Your task to perform on an android device: set the timer Image 0: 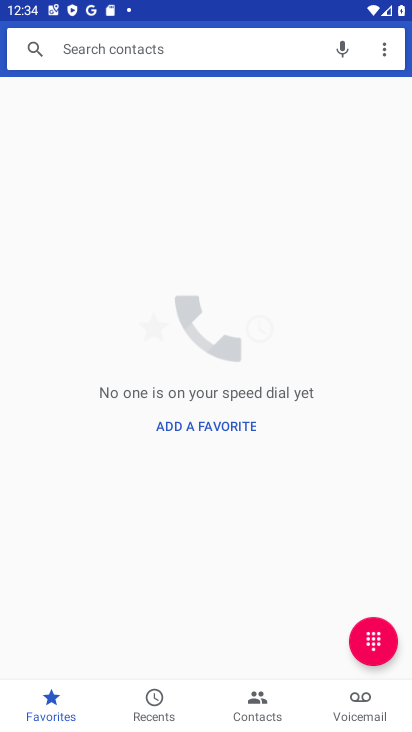
Step 0: press home button
Your task to perform on an android device: set the timer Image 1: 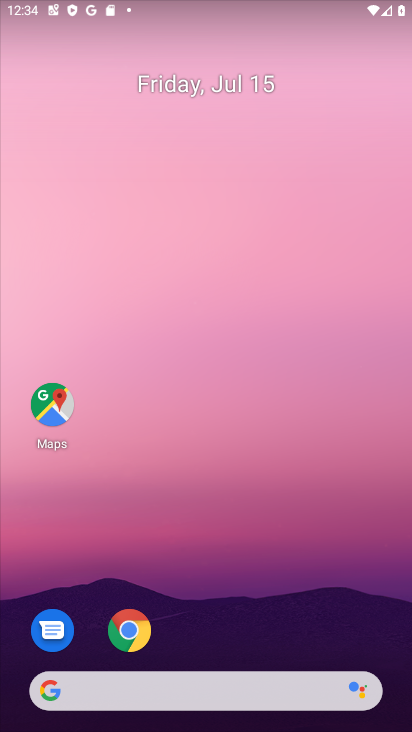
Step 1: drag from (338, 611) to (228, 0)
Your task to perform on an android device: set the timer Image 2: 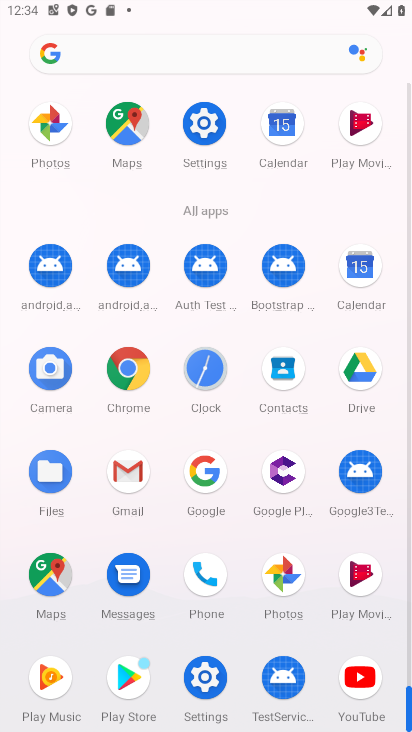
Step 2: click (211, 373)
Your task to perform on an android device: set the timer Image 3: 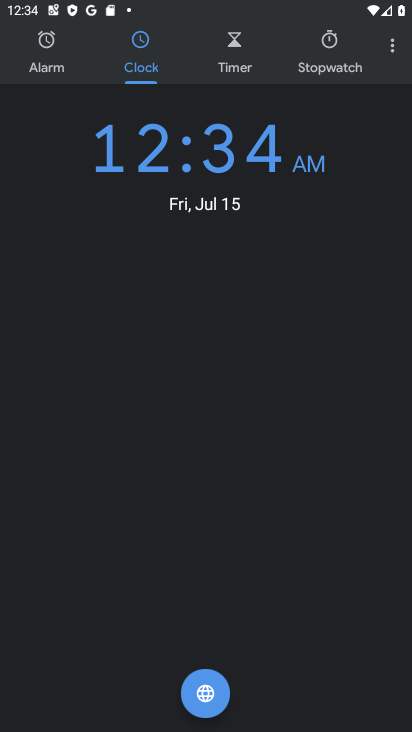
Step 3: click (237, 31)
Your task to perform on an android device: set the timer Image 4: 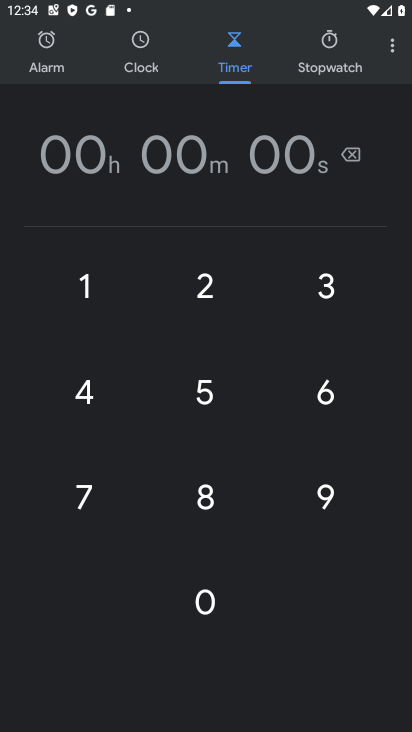
Step 4: click (221, 295)
Your task to perform on an android device: set the timer Image 5: 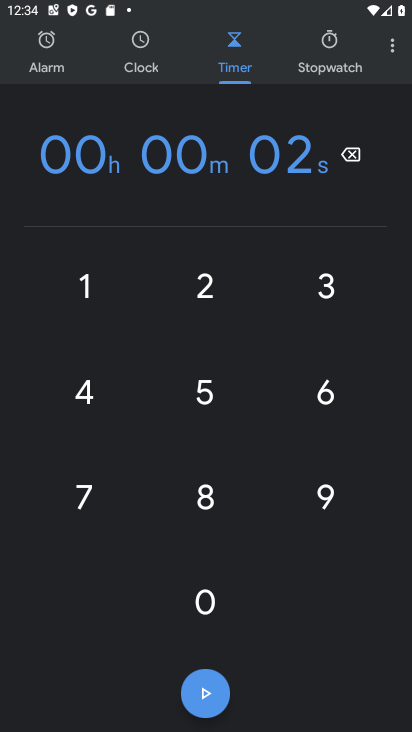
Step 5: click (228, 382)
Your task to perform on an android device: set the timer Image 6: 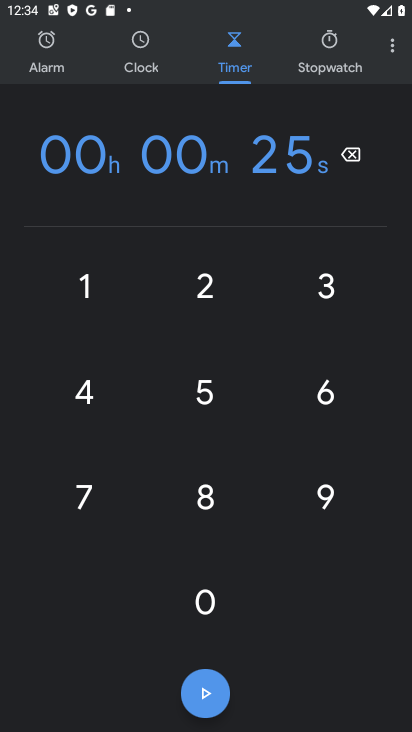
Step 6: task complete